Your task to perform on an android device: find photos in the google photos app Image 0: 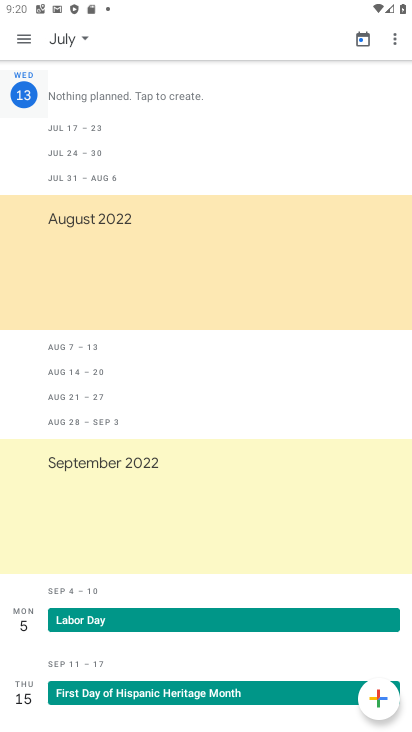
Step 0: press home button
Your task to perform on an android device: find photos in the google photos app Image 1: 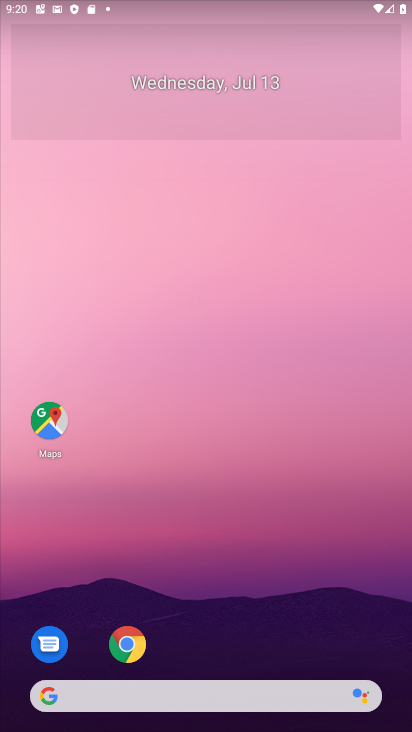
Step 1: drag from (200, 645) to (308, 35)
Your task to perform on an android device: find photos in the google photos app Image 2: 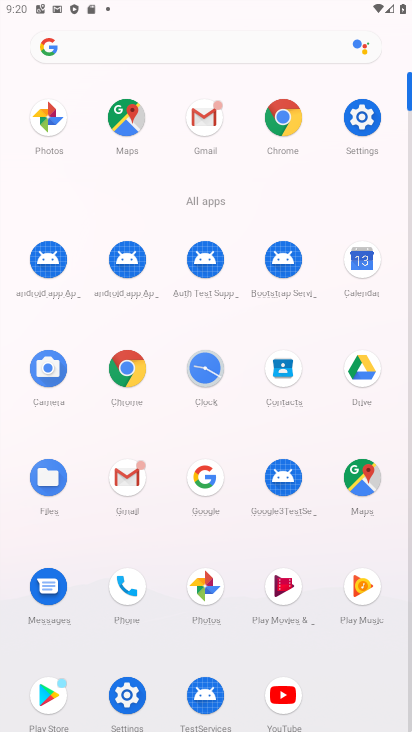
Step 2: click (200, 594)
Your task to perform on an android device: find photos in the google photos app Image 3: 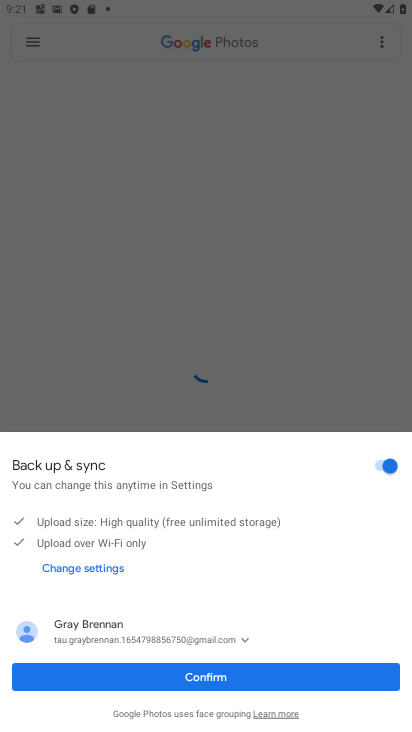
Step 3: click (209, 668)
Your task to perform on an android device: find photos in the google photos app Image 4: 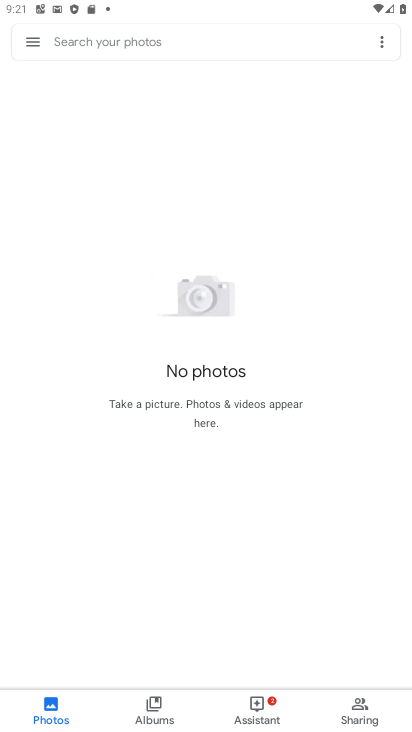
Step 4: task complete